Your task to perform on an android device: turn on showing notifications on the lock screen Image 0: 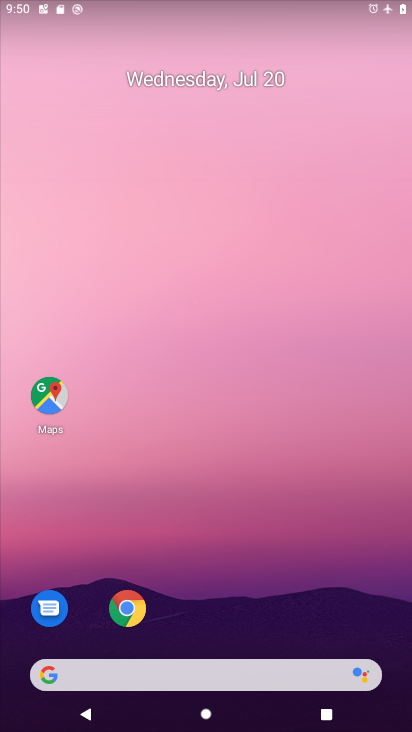
Step 0: drag from (237, 647) to (238, 324)
Your task to perform on an android device: turn on showing notifications on the lock screen Image 1: 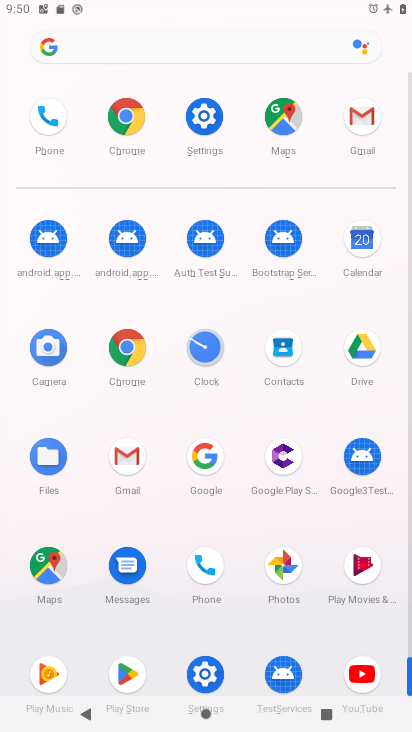
Step 1: click (194, 113)
Your task to perform on an android device: turn on showing notifications on the lock screen Image 2: 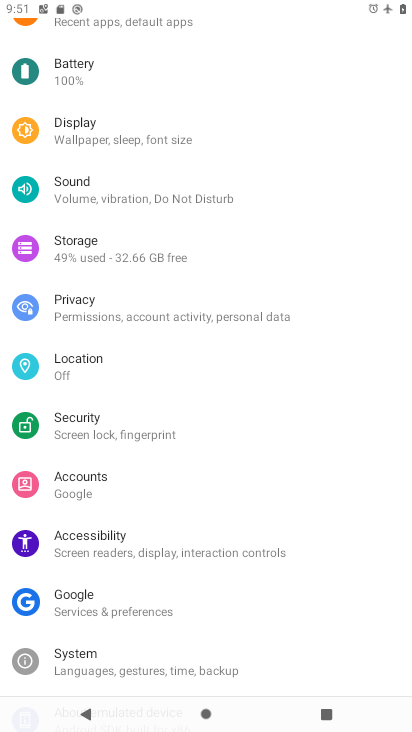
Step 2: drag from (142, 164) to (162, 543)
Your task to perform on an android device: turn on showing notifications on the lock screen Image 3: 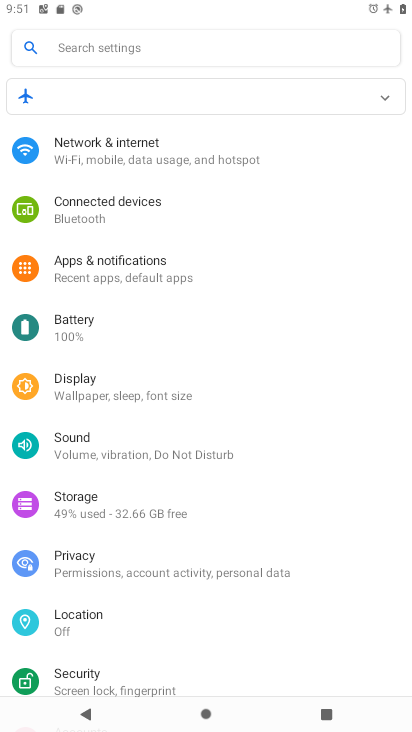
Step 3: drag from (134, 213) to (143, 597)
Your task to perform on an android device: turn on showing notifications on the lock screen Image 4: 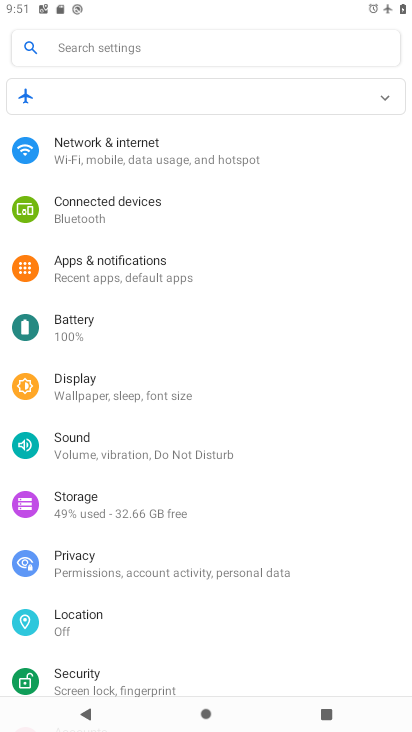
Step 4: click (136, 256)
Your task to perform on an android device: turn on showing notifications on the lock screen Image 5: 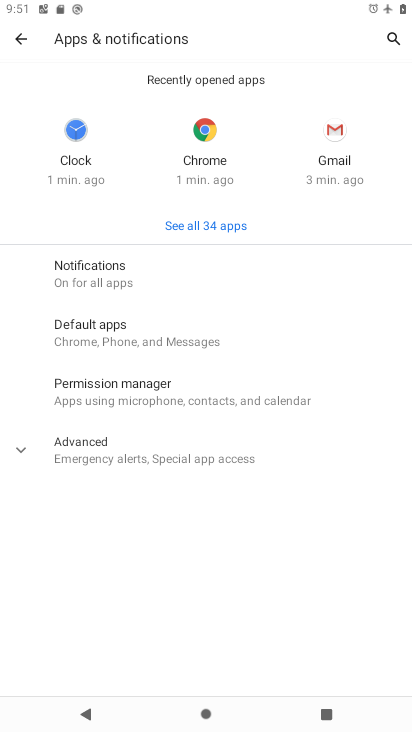
Step 5: click (131, 263)
Your task to perform on an android device: turn on showing notifications on the lock screen Image 6: 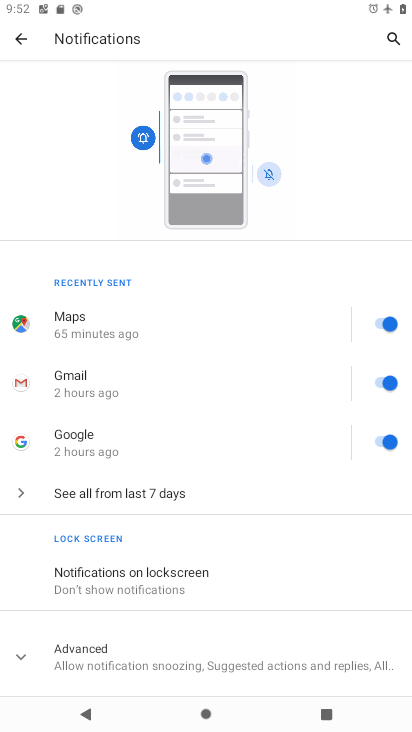
Step 6: click (214, 577)
Your task to perform on an android device: turn on showing notifications on the lock screen Image 7: 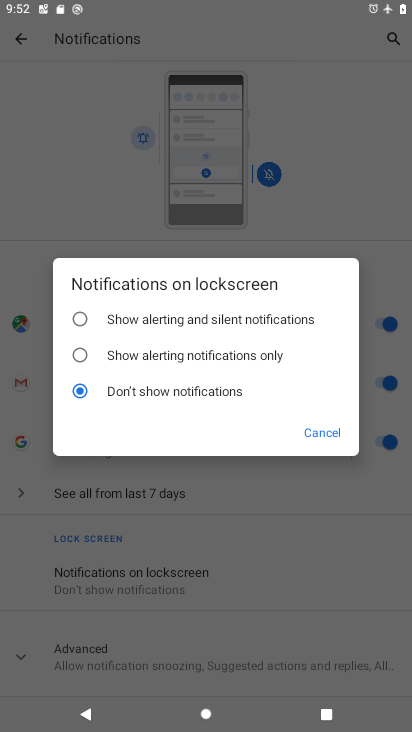
Step 7: click (135, 316)
Your task to perform on an android device: turn on showing notifications on the lock screen Image 8: 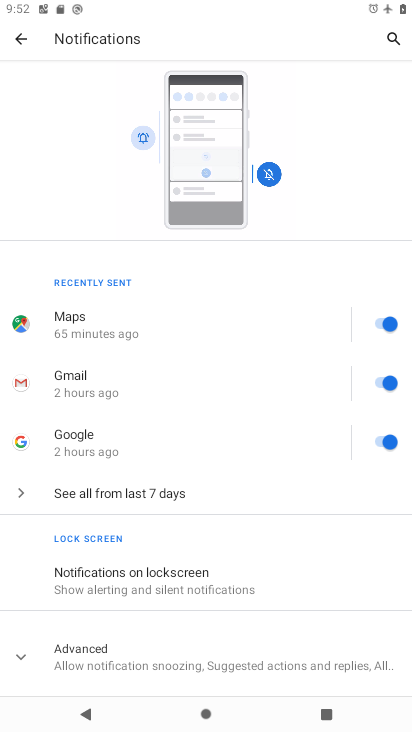
Step 8: task complete